Your task to perform on an android device: Open sound settings Image 0: 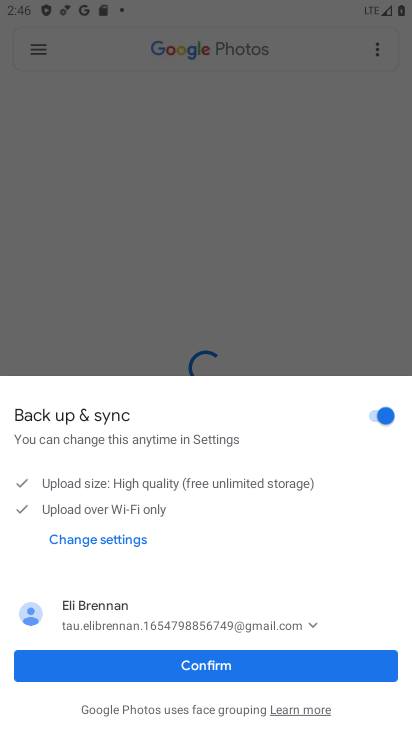
Step 0: press home button
Your task to perform on an android device: Open sound settings Image 1: 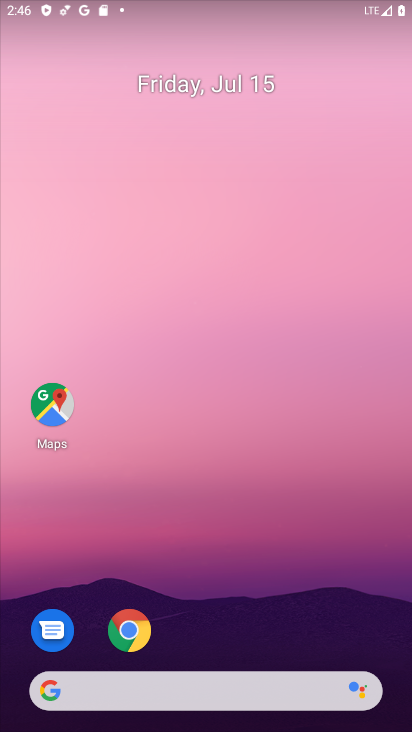
Step 1: drag from (182, 693) to (172, 6)
Your task to perform on an android device: Open sound settings Image 2: 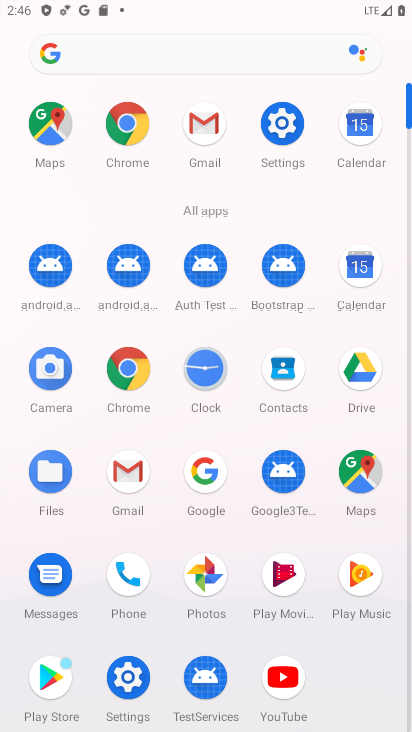
Step 2: click (272, 143)
Your task to perform on an android device: Open sound settings Image 3: 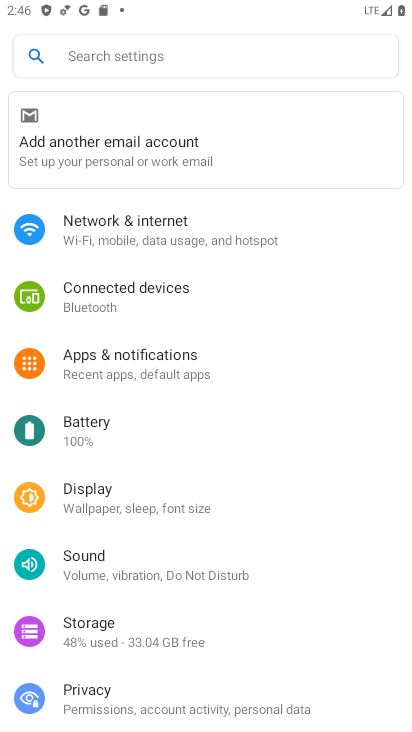
Step 3: click (100, 558)
Your task to perform on an android device: Open sound settings Image 4: 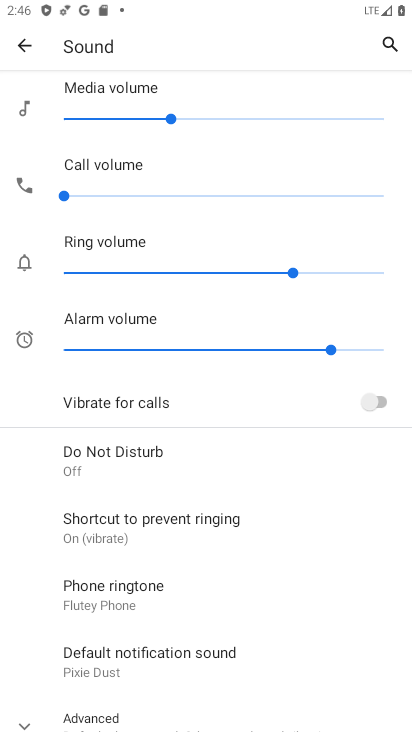
Step 4: task complete